Your task to perform on an android device: Show me productivity apps on the Play Store Image 0: 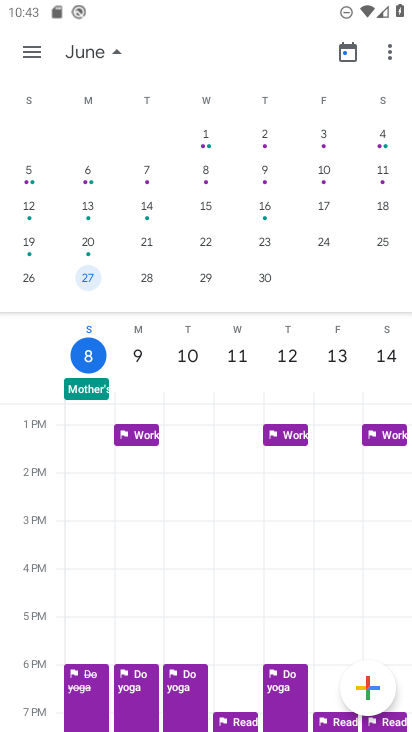
Step 0: press home button
Your task to perform on an android device: Show me productivity apps on the Play Store Image 1: 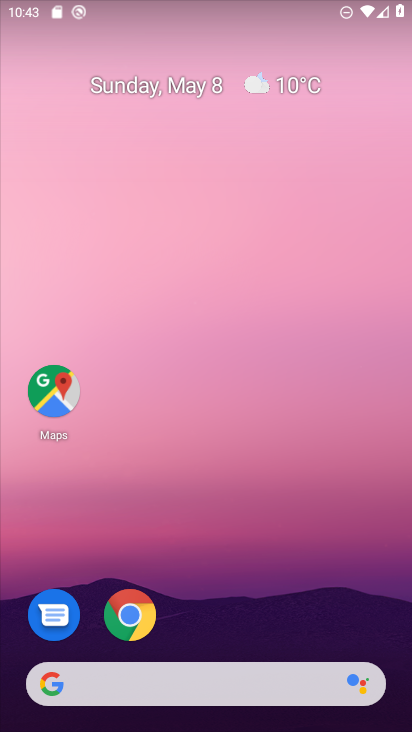
Step 1: drag from (277, 594) to (293, 74)
Your task to perform on an android device: Show me productivity apps on the Play Store Image 2: 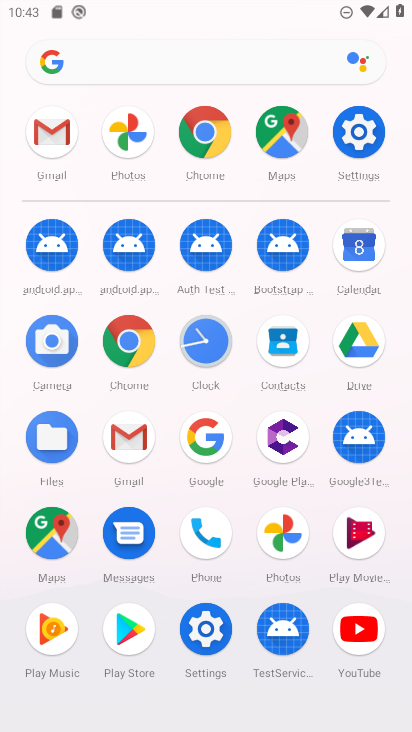
Step 2: click (134, 631)
Your task to perform on an android device: Show me productivity apps on the Play Store Image 3: 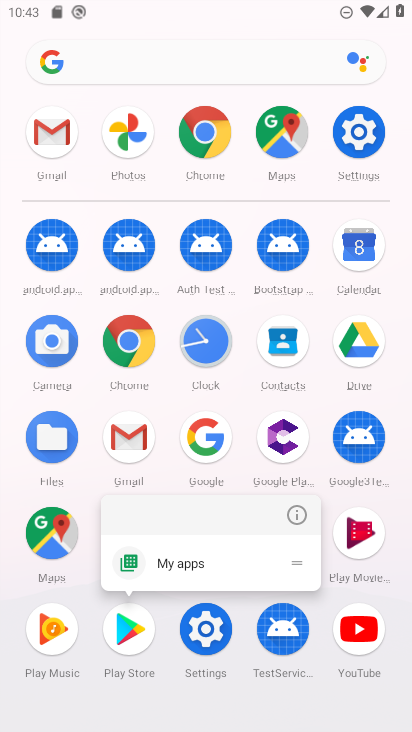
Step 3: click (127, 625)
Your task to perform on an android device: Show me productivity apps on the Play Store Image 4: 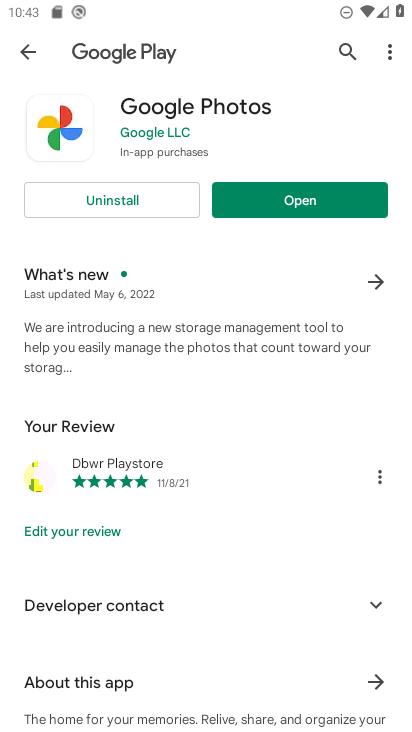
Step 4: click (30, 43)
Your task to perform on an android device: Show me productivity apps on the Play Store Image 5: 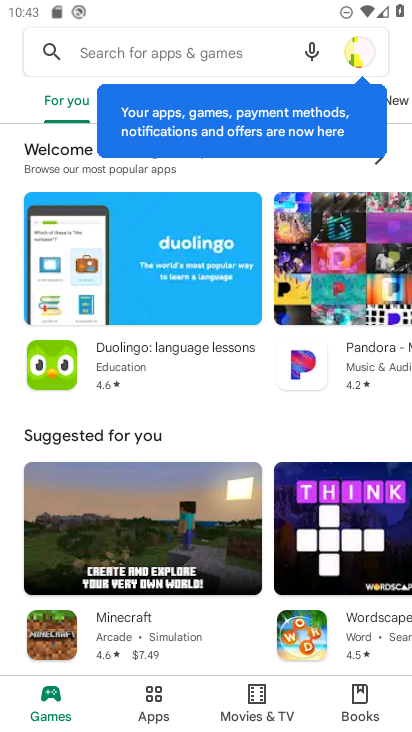
Step 5: click (163, 709)
Your task to perform on an android device: Show me productivity apps on the Play Store Image 6: 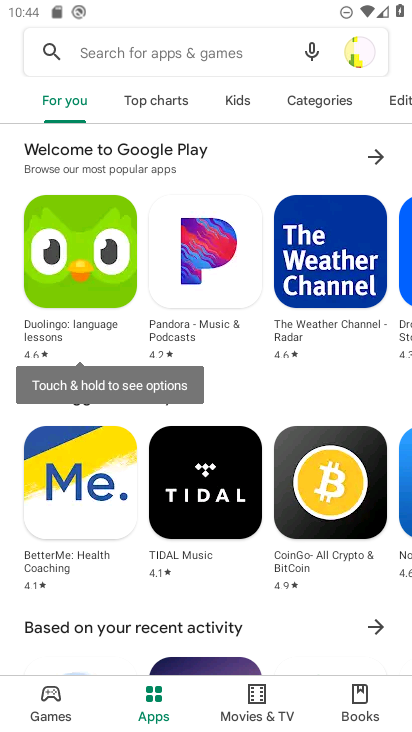
Step 6: task complete